Your task to perform on an android device: check battery use Image 0: 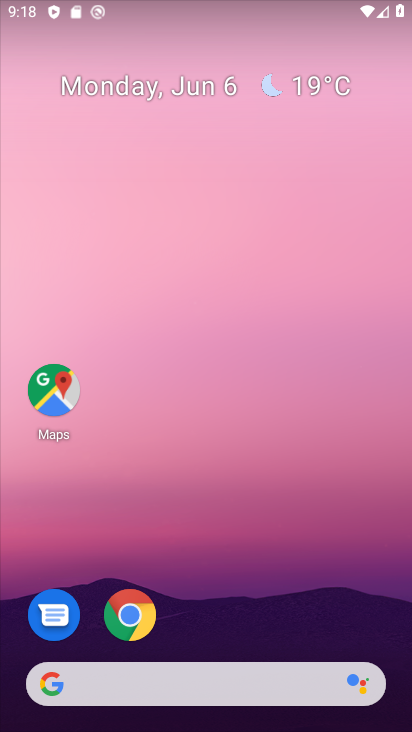
Step 0: drag from (270, 573) to (268, 70)
Your task to perform on an android device: check battery use Image 1: 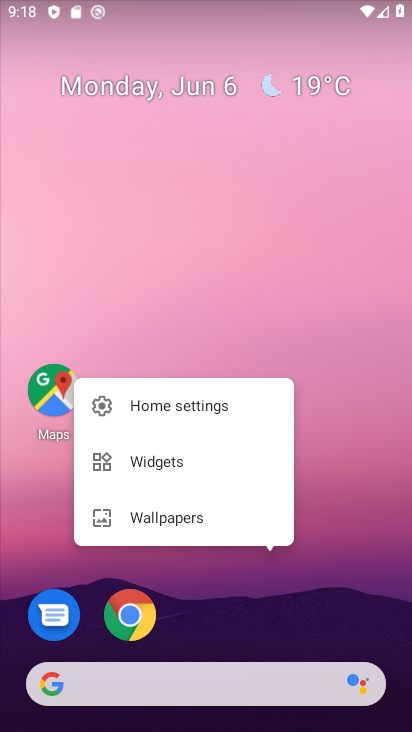
Step 1: click (367, 553)
Your task to perform on an android device: check battery use Image 2: 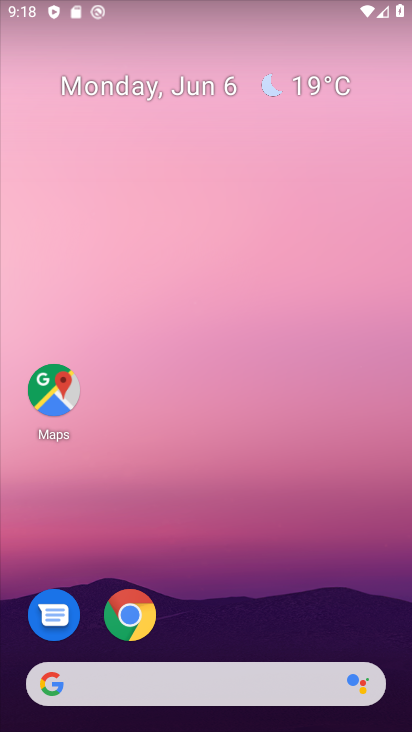
Step 2: drag from (262, 628) to (269, 11)
Your task to perform on an android device: check battery use Image 3: 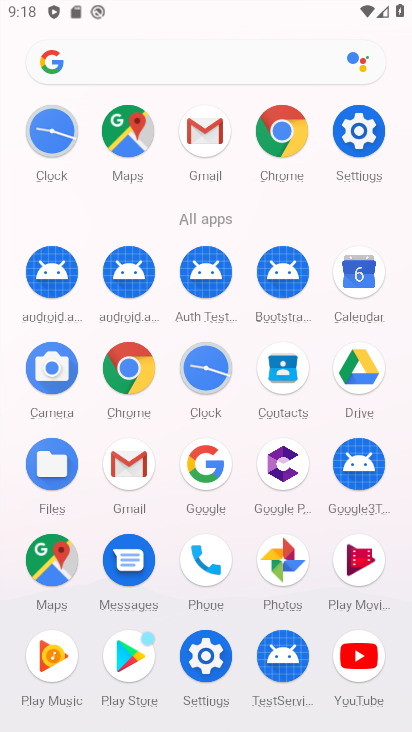
Step 3: click (367, 145)
Your task to perform on an android device: check battery use Image 4: 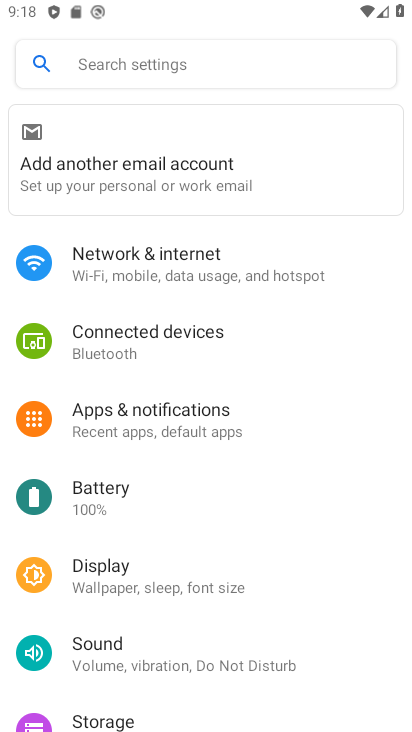
Step 4: click (144, 503)
Your task to perform on an android device: check battery use Image 5: 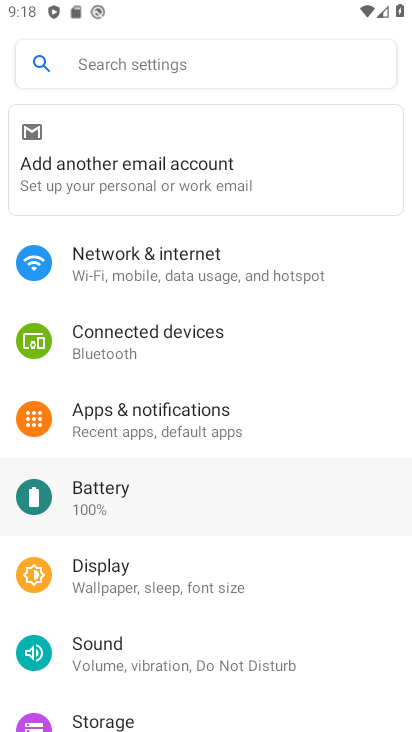
Step 5: task complete